Your task to perform on an android device: delete the emails in spam in the gmail app Image 0: 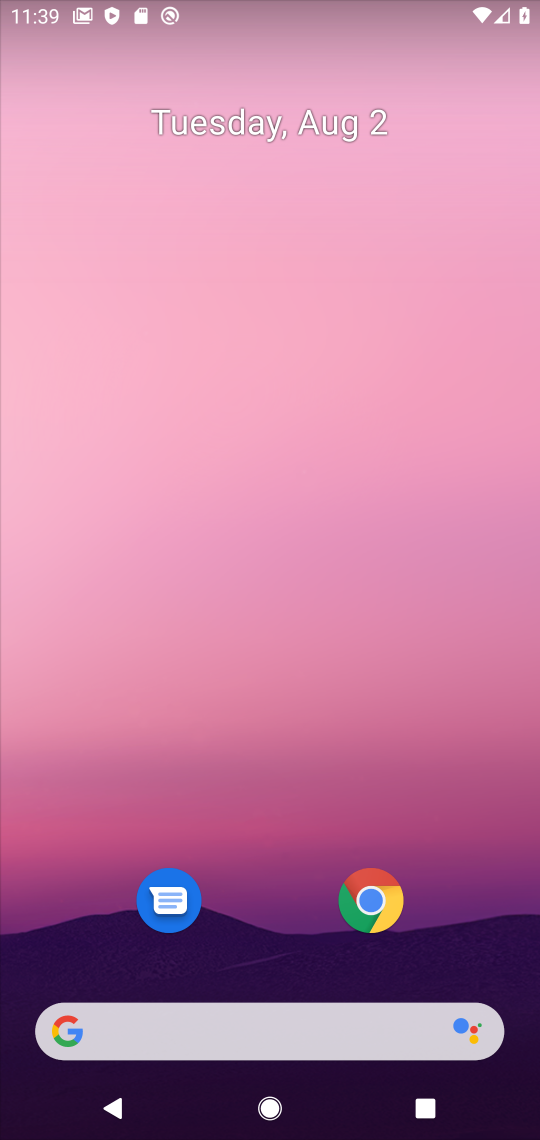
Step 0: drag from (281, 867) to (327, 7)
Your task to perform on an android device: delete the emails in spam in the gmail app Image 1: 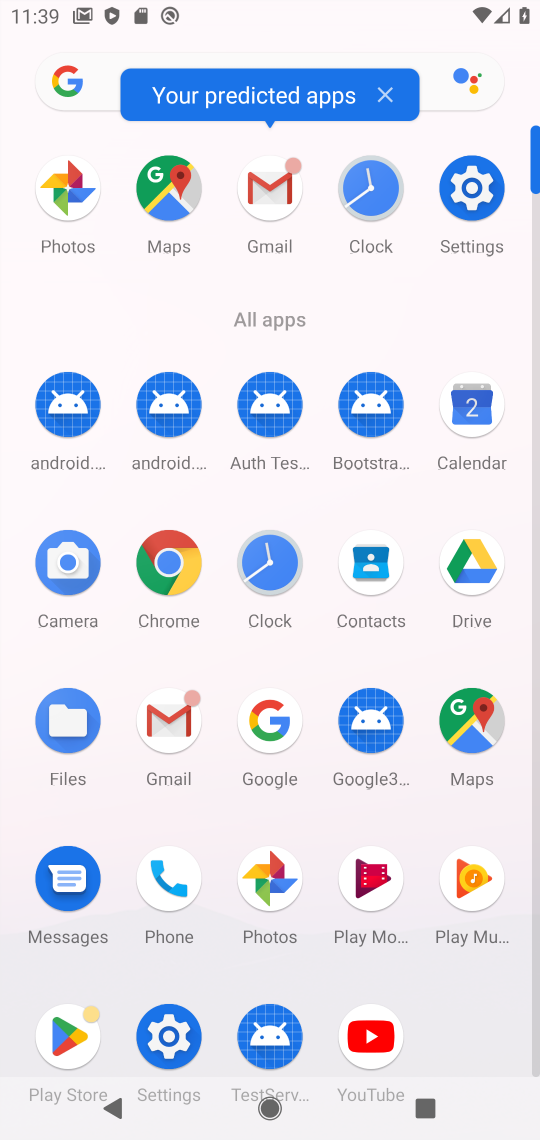
Step 1: click (260, 193)
Your task to perform on an android device: delete the emails in spam in the gmail app Image 2: 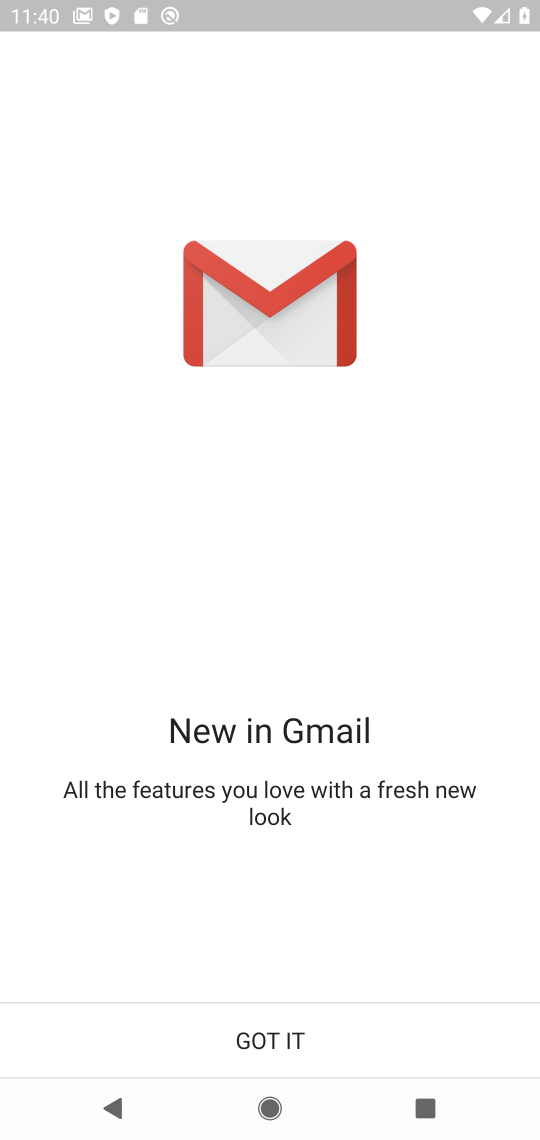
Step 2: click (342, 1042)
Your task to perform on an android device: delete the emails in spam in the gmail app Image 3: 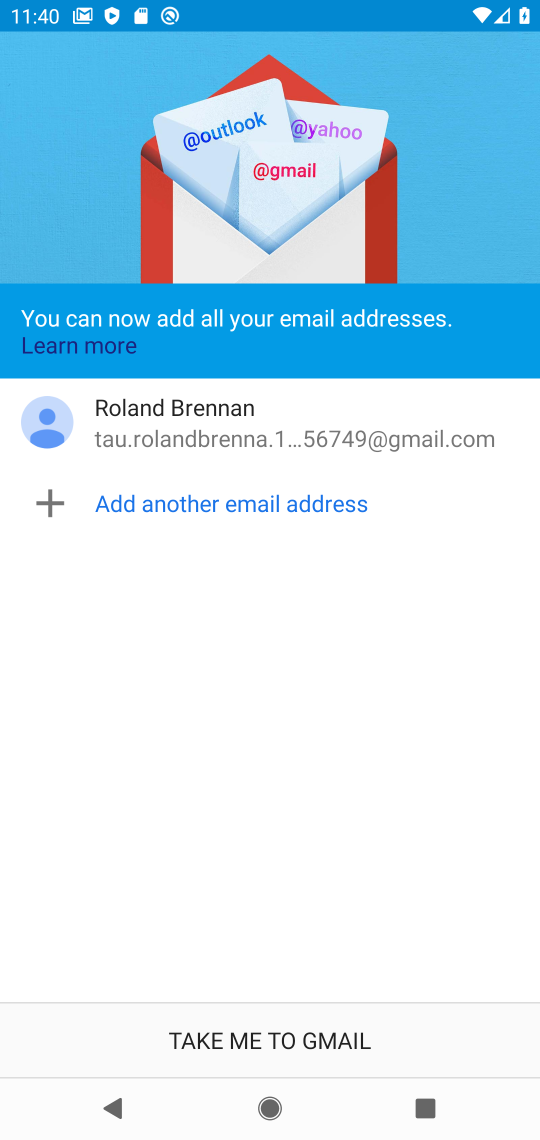
Step 3: click (344, 1033)
Your task to perform on an android device: delete the emails in spam in the gmail app Image 4: 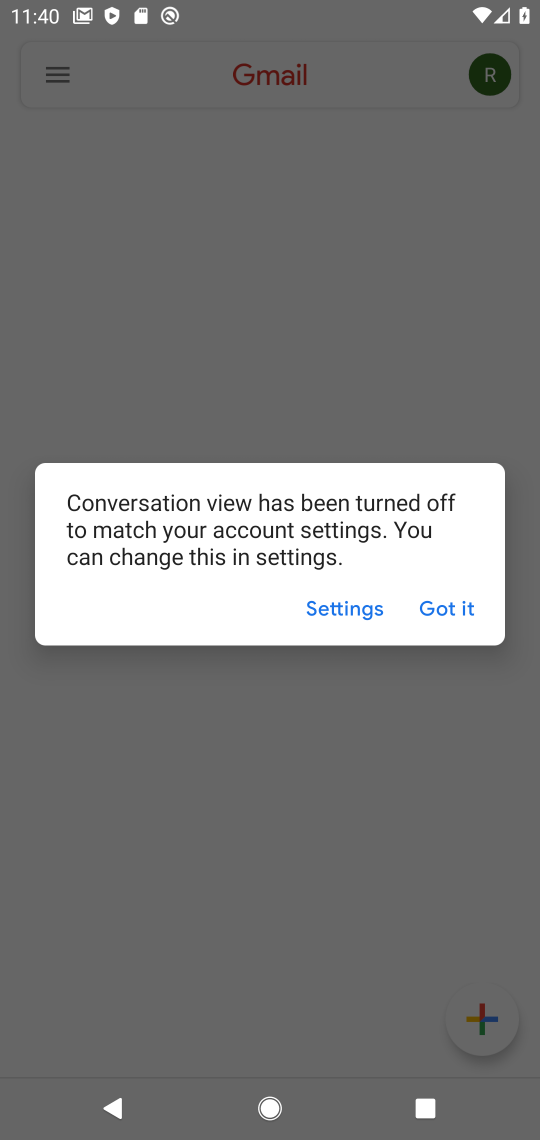
Step 4: click (473, 616)
Your task to perform on an android device: delete the emails in spam in the gmail app Image 5: 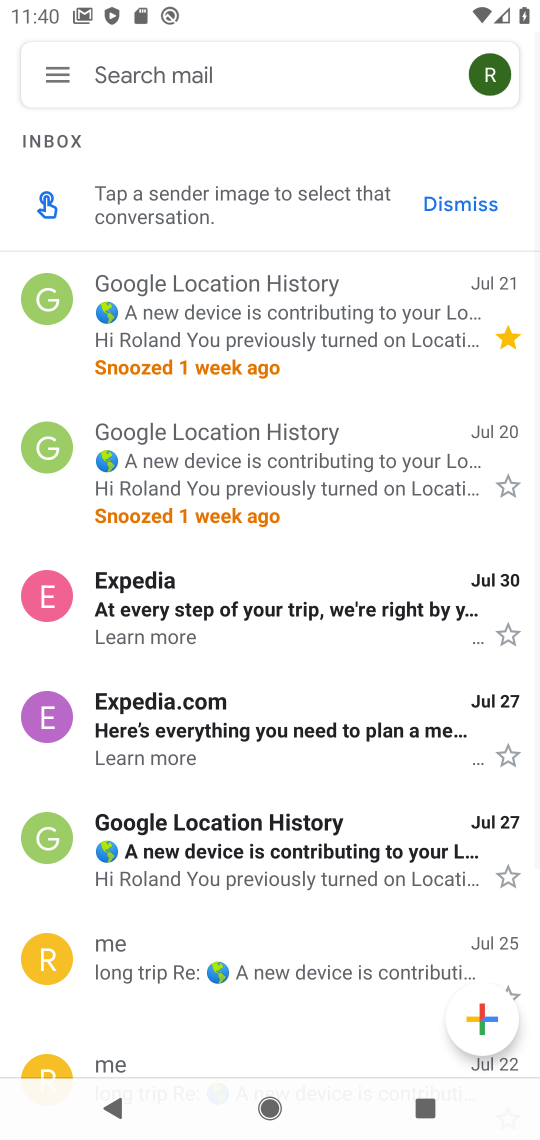
Step 5: click (55, 72)
Your task to perform on an android device: delete the emails in spam in the gmail app Image 6: 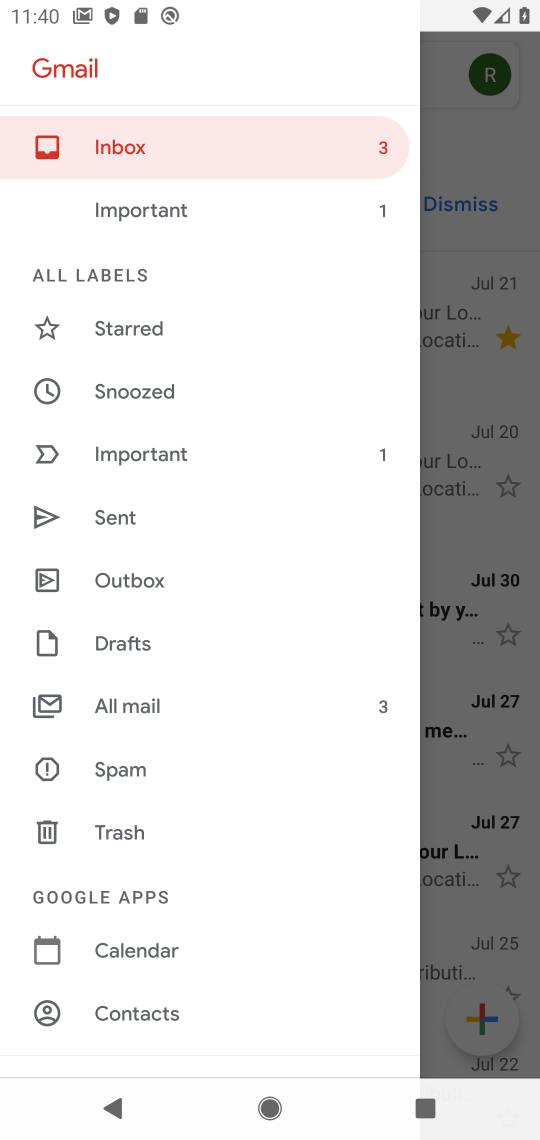
Step 6: click (113, 770)
Your task to perform on an android device: delete the emails in spam in the gmail app Image 7: 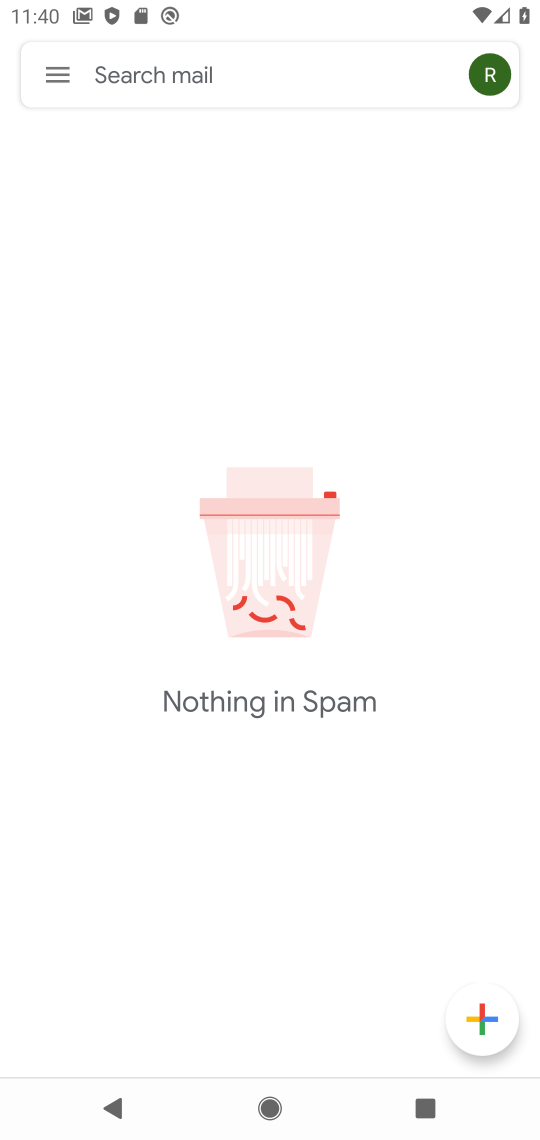
Step 7: task complete